Your task to perform on an android device: Clear the shopping cart on amazon.com. Search for razer kraken on amazon.com, select the first entry, and add it to the cart. Image 0: 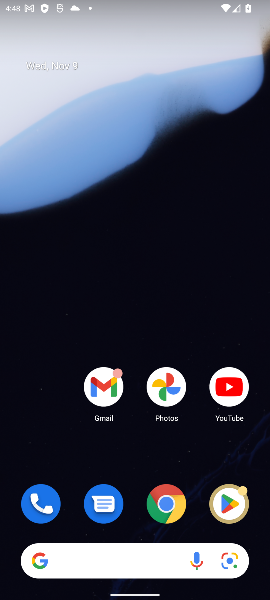
Step 0: click (113, 553)
Your task to perform on an android device: Clear the shopping cart on amazon.com. Search for razer kraken on amazon.com, select the first entry, and add it to the cart. Image 1: 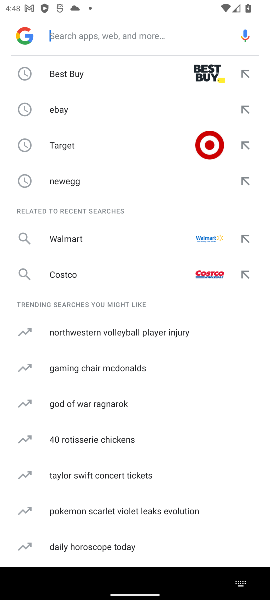
Step 1: type "amazon.com."
Your task to perform on an android device: Clear the shopping cart on amazon.com. Search for razer kraken on amazon.com, select the first entry, and add it to the cart. Image 2: 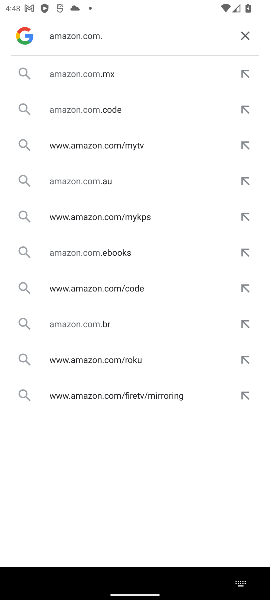
Step 2: click (101, 73)
Your task to perform on an android device: Clear the shopping cart on amazon.com. Search for razer kraken on amazon.com, select the first entry, and add it to the cart. Image 3: 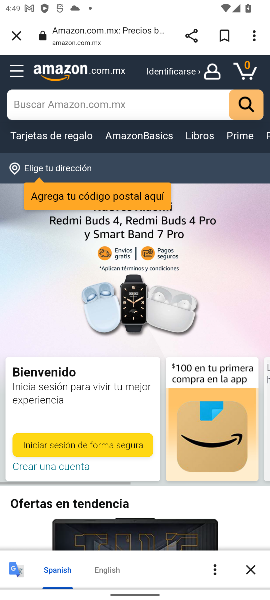
Step 3: click (92, 97)
Your task to perform on an android device: Clear the shopping cart on amazon.com. Search for razer kraken on amazon.com, select the first entry, and add it to the cart. Image 4: 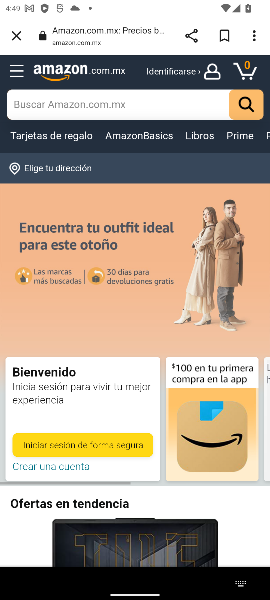
Step 4: type " razer kraken "
Your task to perform on an android device: Clear the shopping cart on amazon.com. Search for razer kraken on amazon.com, select the first entry, and add it to the cart. Image 5: 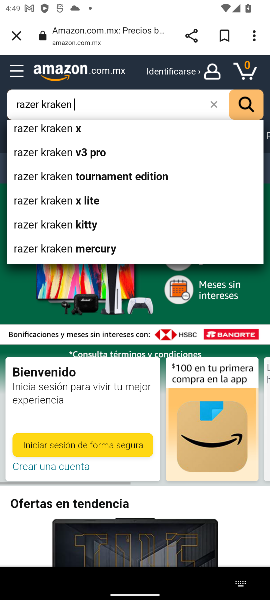
Step 5: click (50, 128)
Your task to perform on an android device: Clear the shopping cart on amazon.com. Search for razer kraken on amazon.com, select the first entry, and add it to the cart. Image 6: 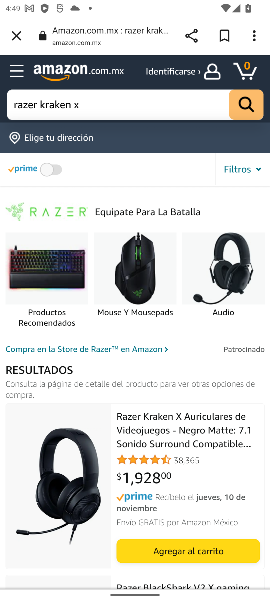
Step 6: click (29, 269)
Your task to perform on an android device: Clear the shopping cart on amazon.com. Search for razer kraken on amazon.com, select the first entry, and add it to the cart. Image 7: 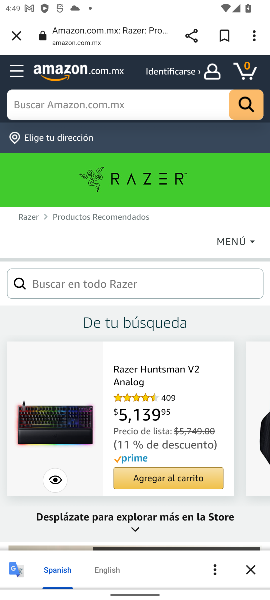
Step 7: click (160, 480)
Your task to perform on an android device: Clear the shopping cart on amazon.com. Search for razer kraken on amazon.com, select the first entry, and add it to the cart. Image 8: 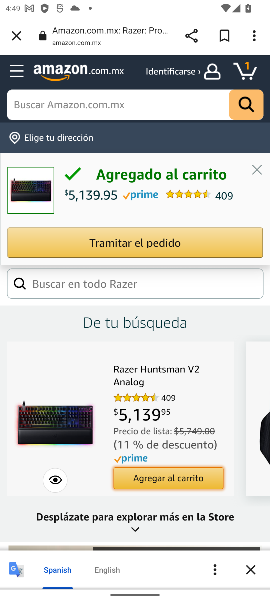
Step 8: task complete